Your task to perform on an android device: toggle notification dots Image 0: 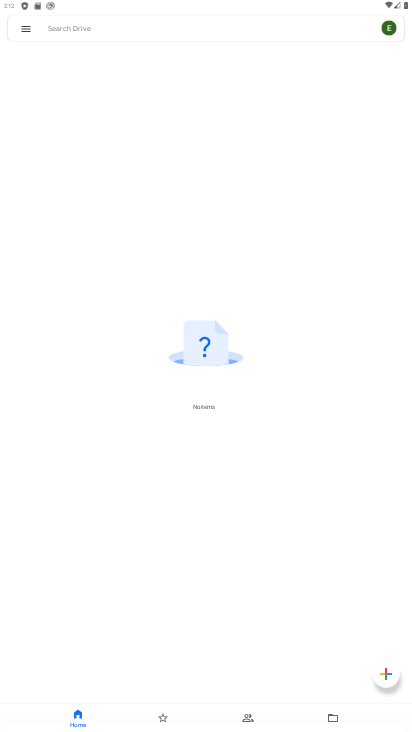
Step 0: press home button
Your task to perform on an android device: toggle notification dots Image 1: 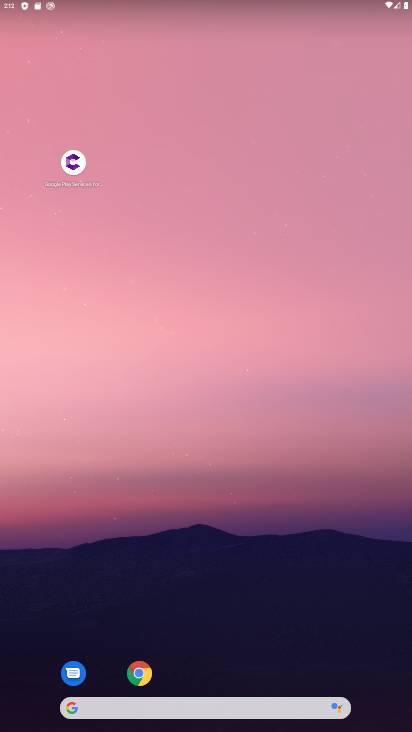
Step 1: drag from (301, 664) to (298, 317)
Your task to perform on an android device: toggle notification dots Image 2: 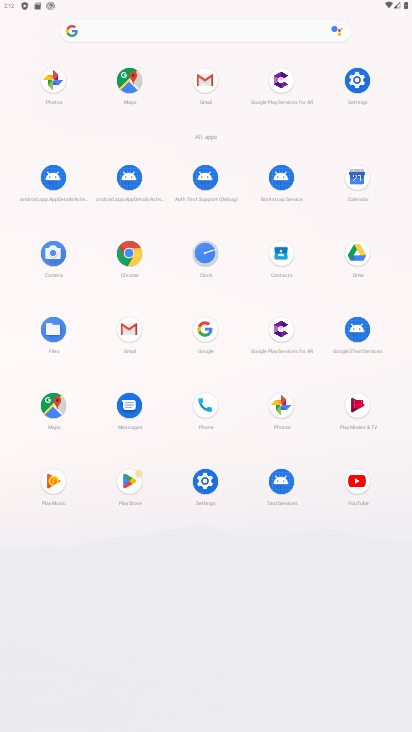
Step 2: click (203, 481)
Your task to perform on an android device: toggle notification dots Image 3: 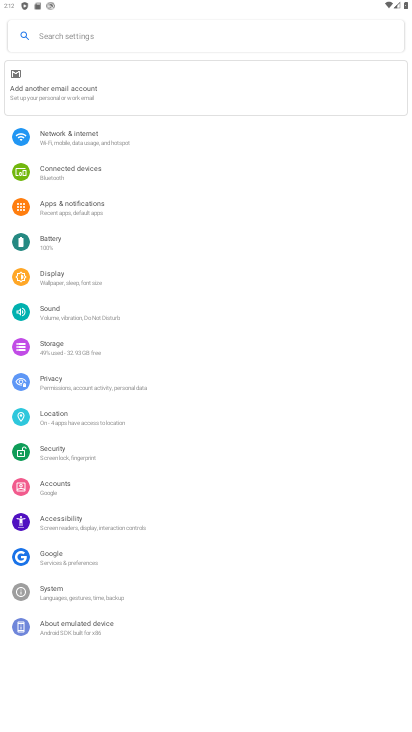
Step 3: click (61, 220)
Your task to perform on an android device: toggle notification dots Image 4: 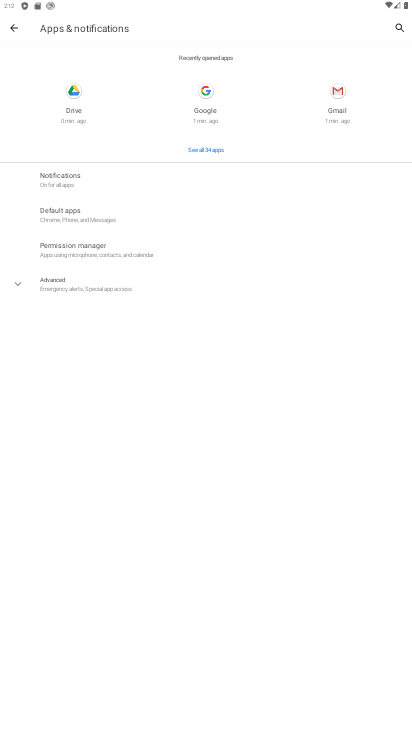
Step 4: click (59, 178)
Your task to perform on an android device: toggle notification dots Image 5: 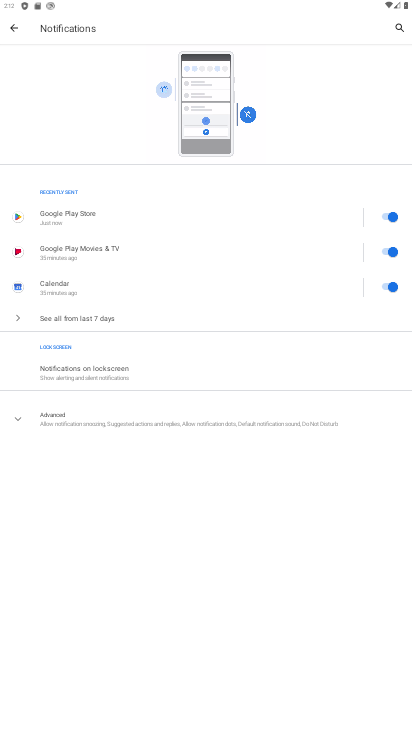
Step 5: click (15, 421)
Your task to perform on an android device: toggle notification dots Image 6: 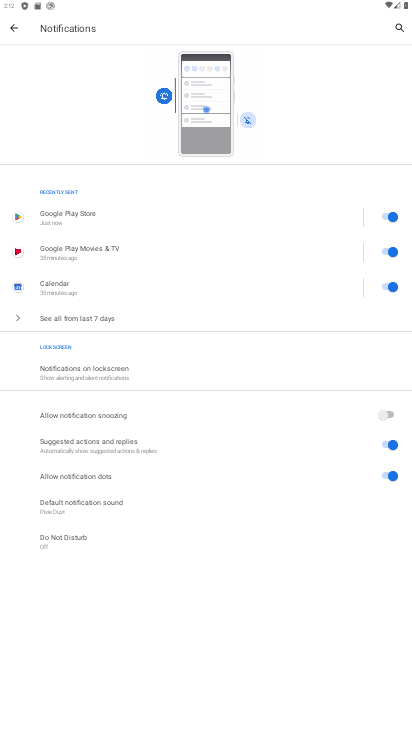
Step 6: click (382, 473)
Your task to perform on an android device: toggle notification dots Image 7: 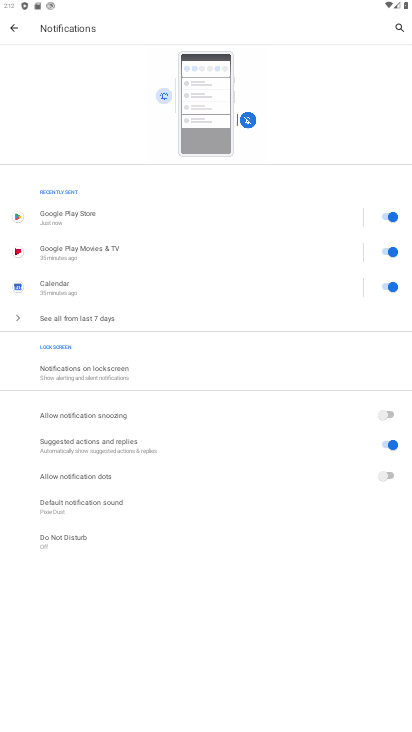
Step 7: task complete